Your task to perform on an android device: Empty the shopping cart on target. Search for "logitech g pro" on target, select the first entry, add it to the cart, then select checkout. Image 0: 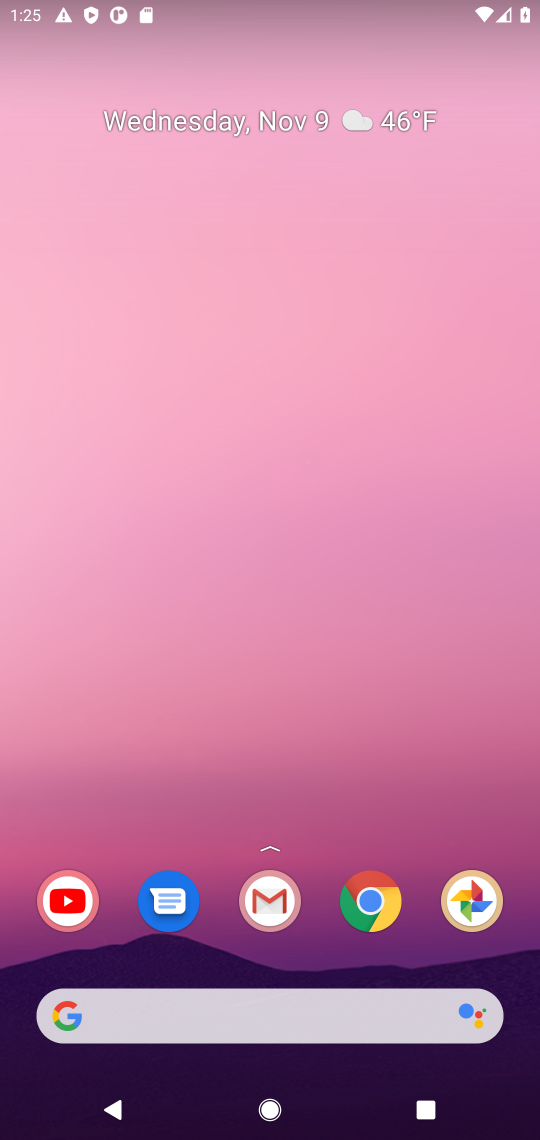
Step 0: click (375, 897)
Your task to perform on an android device: Empty the shopping cart on target. Search for "logitech g pro" on target, select the first entry, add it to the cart, then select checkout. Image 1: 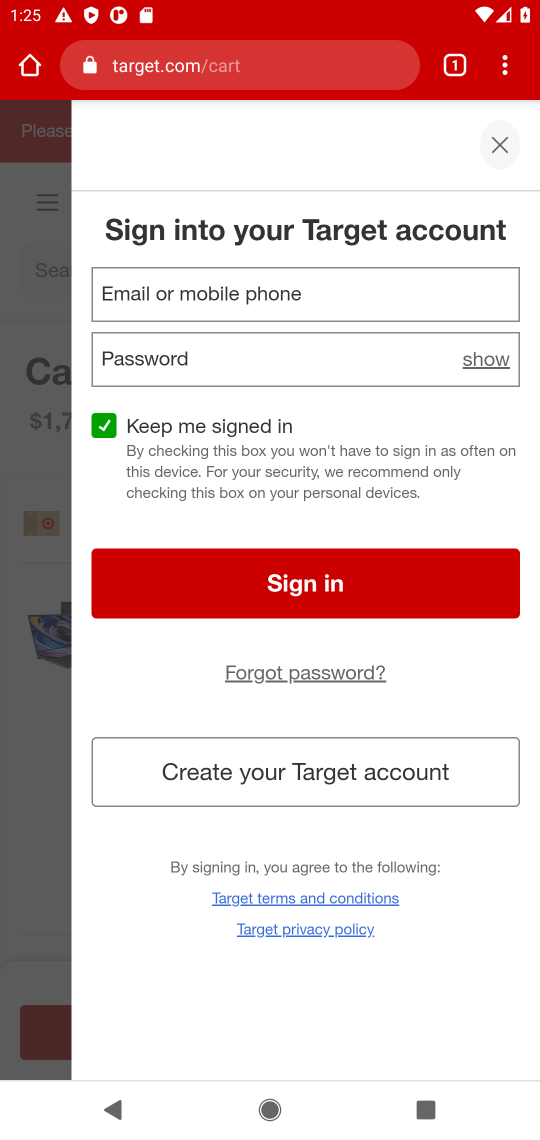
Step 1: click (496, 148)
Your task to perform on an android device: Empty the shopping cart on target. Search for "logitech g pro" on target, select the first entry, add it to the cart, then select checkout. Image 2: 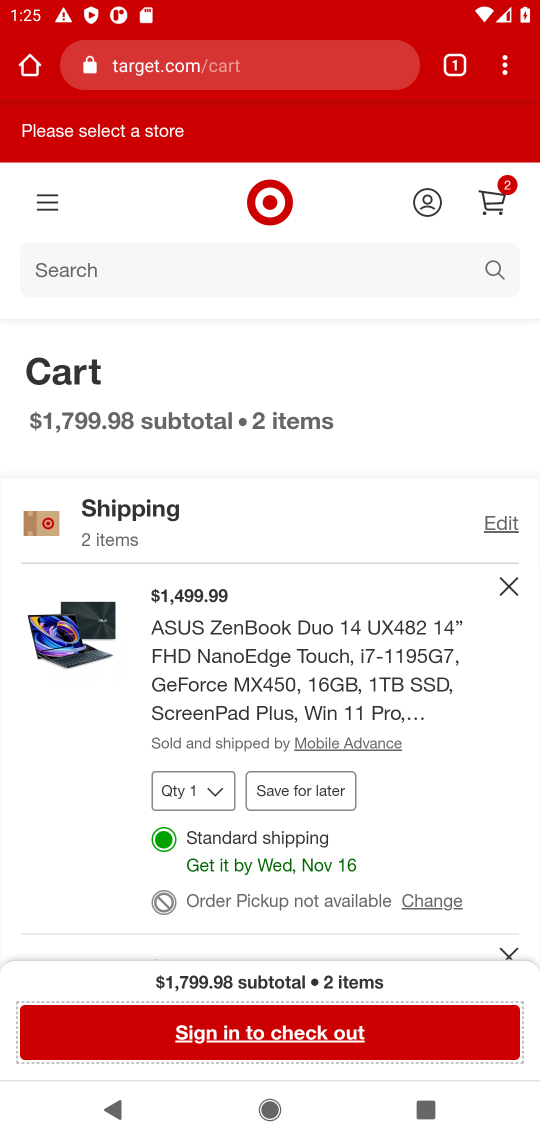
Step 2: click (493, 213)
Your task to perform on an android device: Empty the shopping cart on target. Search for "logitech g pro" on target, select the first entry, add it to the cart, then select checkout. Image 3: 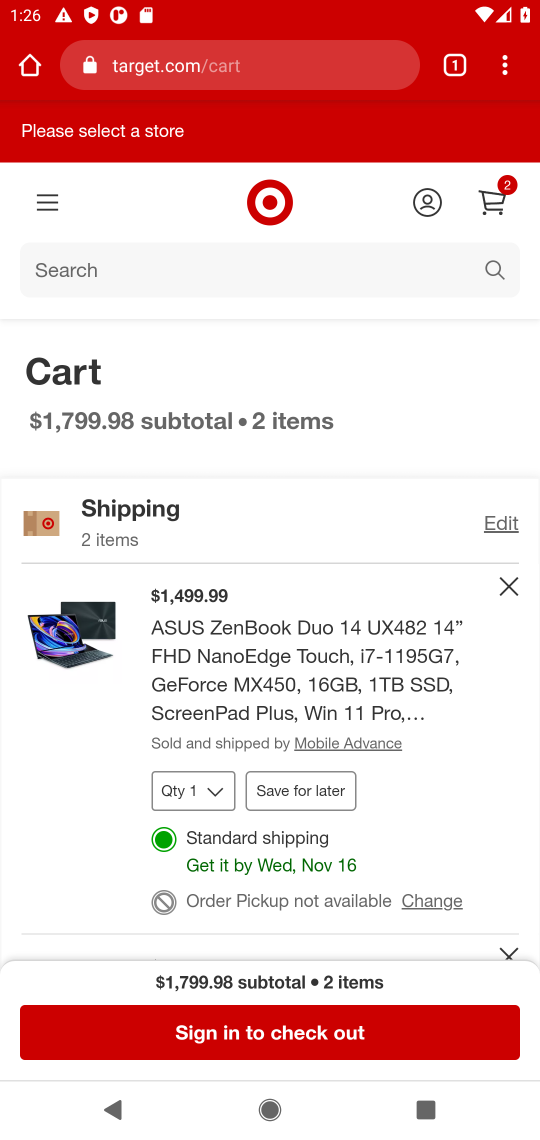
Step 3: drag from (440, 766) to (457, 572)
Your task to perform on an android device: Empty the shopping cart on target. Search for "logitech g pro" on target, select the first entry, add it to the cart, then select checkout. Image 4: 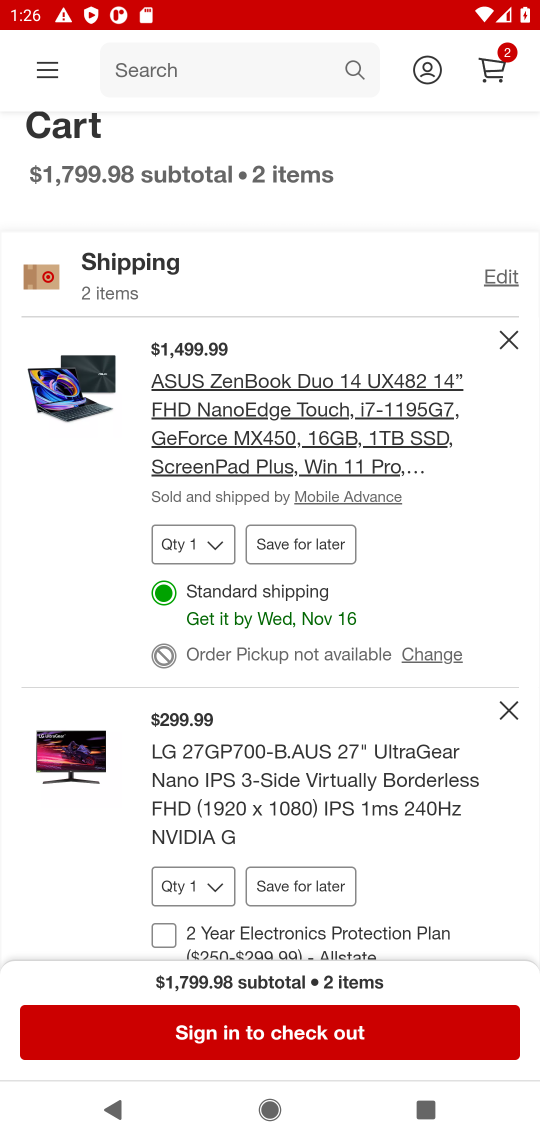
Step 4: click (502, 335)
Your task to perform on an android device: Empty the shopping cart on target. Search for "logitech g pro" on target, select the first entry, add it to the cart, then select checkout. Image 5: 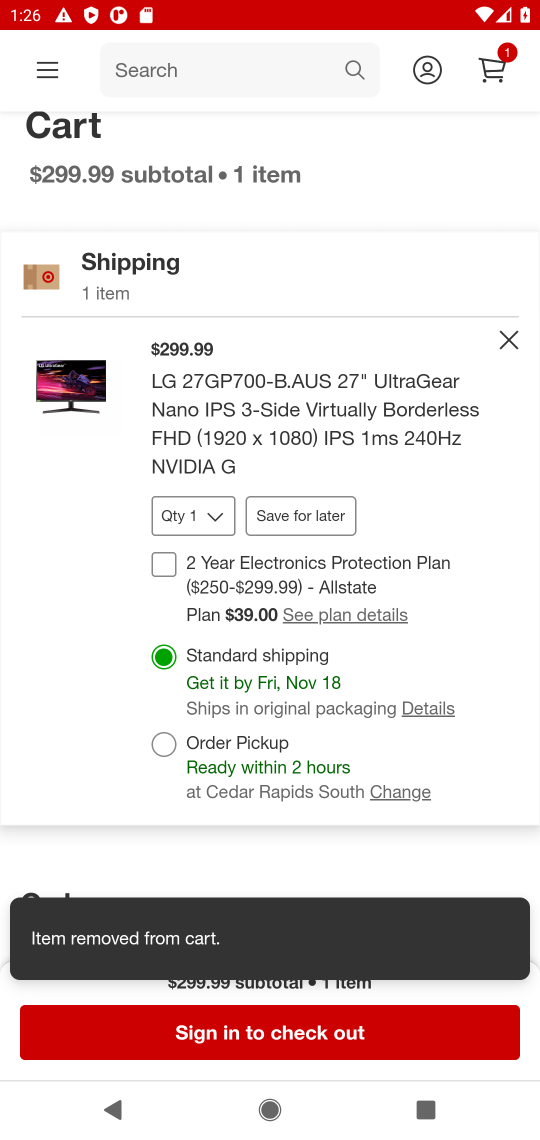
Step 5: click (502, 335)
Your task to perform on an android device: Empty the shopping cart on target. Search for "logitech g pro" on target, select the first entry, add it to the cart, then select checkout. Image 6: 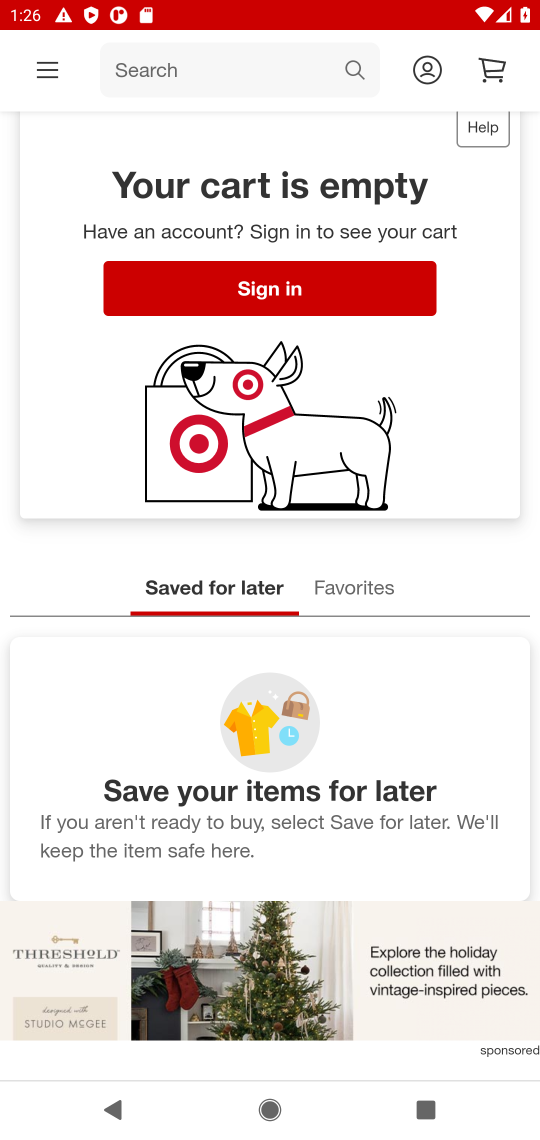
Step 6: click (341, 72)
Your task to perform on an android device: Empty the shopping cart on target. Search for "logitech g pro" on target, select the first entry, add it to the cart, then select checkout. Image 7: 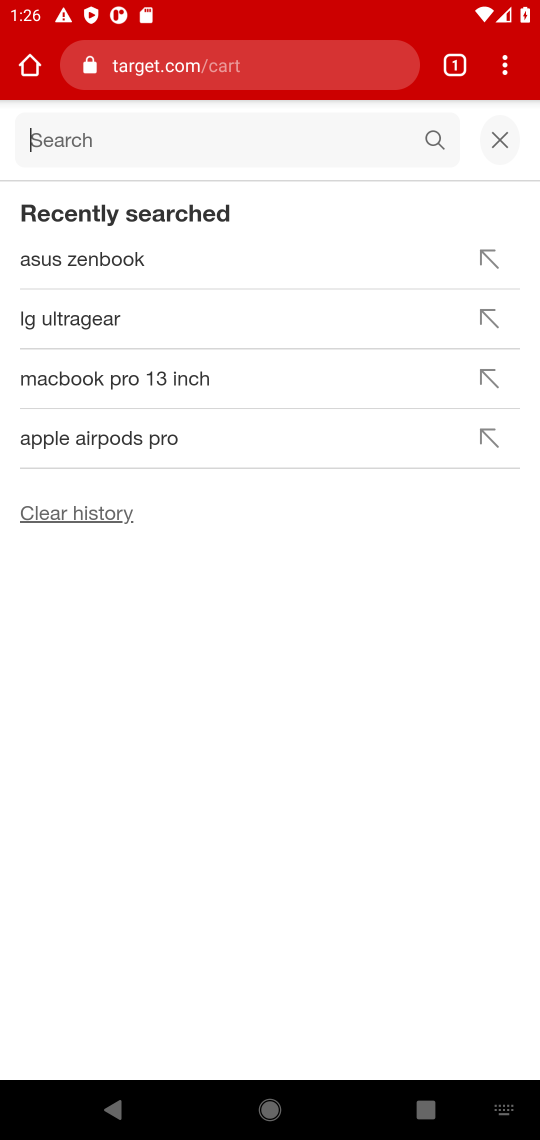
Step 7: type "logitech g pro"
Your task to perform on an android device: Empty the shopping cart on target. Search for "logitech g pro" on target, select the first entry, add it to the cart, then select checkout. Image 8: 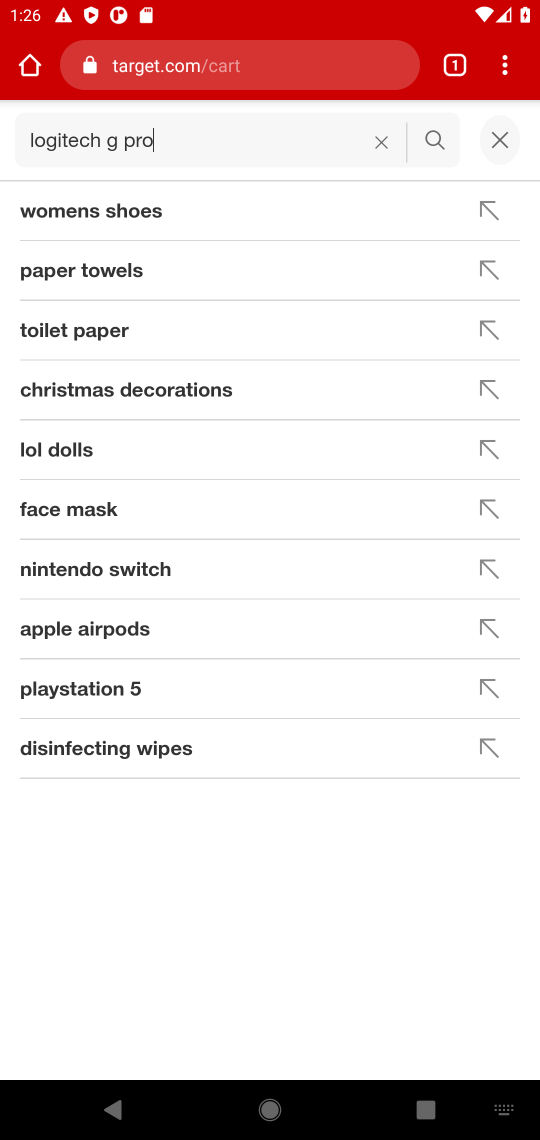
Step 8: press enter
Your task to perform on an android device: Empty the shopping cart on target. Search for "logitech g pro" on target, select the first entry, add it to the cart, then select checkout. Image 9: 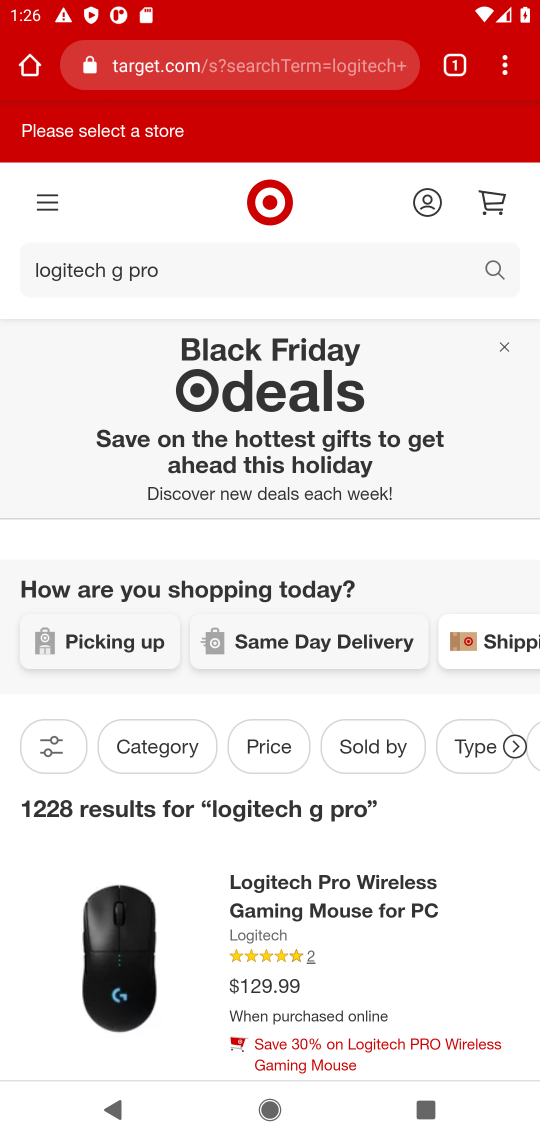
Step 9: task complete